Your task to perform on an android device: turn on the 24-hour format for clock Image 0: 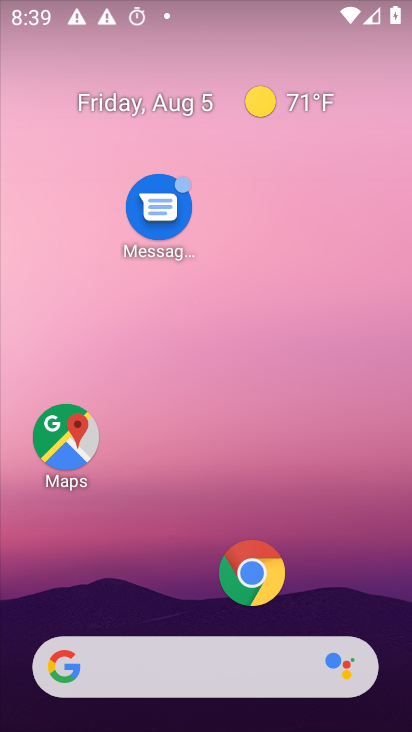
Step 0: press home button
Your task to perform on an android device: turn on the 24-hour format for clock Image 1: 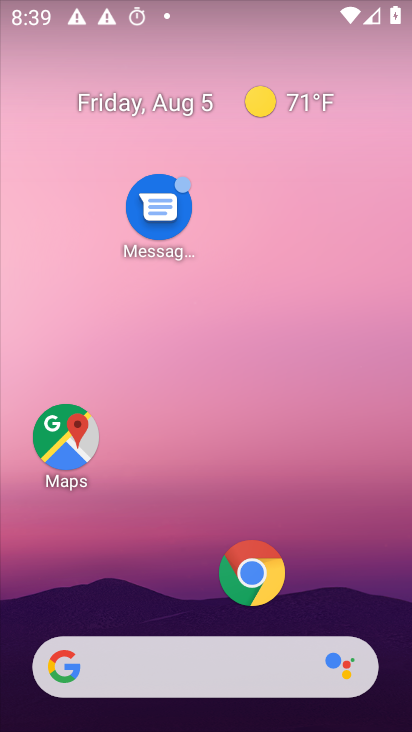
Step 1: drag from (198, 613) to (269, 107)
Your task to perform on an android device: turn on the 24-hour format for clock Image 2: 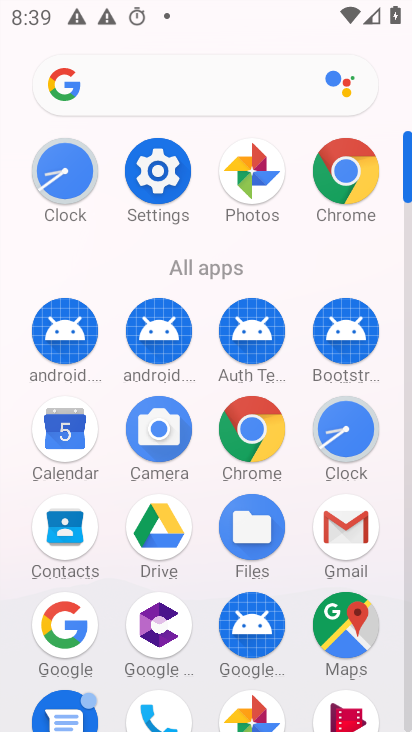
Step 2: click (341, 418)
Your task to perform on an android device: turn on the 24-hour format for clock Image 3: 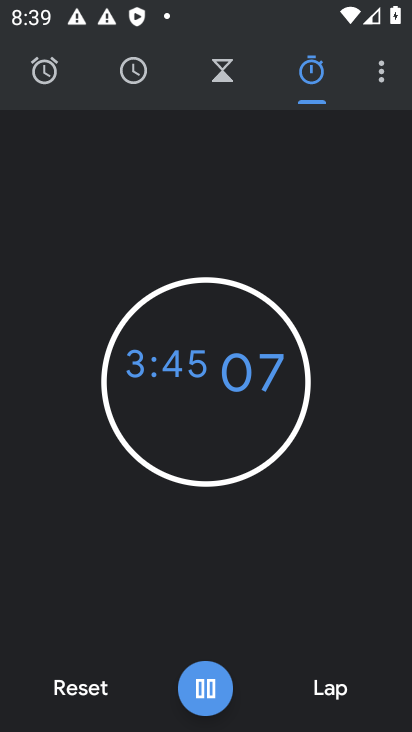
Step 3: click (375, 66)
Your task to perform on an android device: turn on the 24-hour format for clock Image 4: 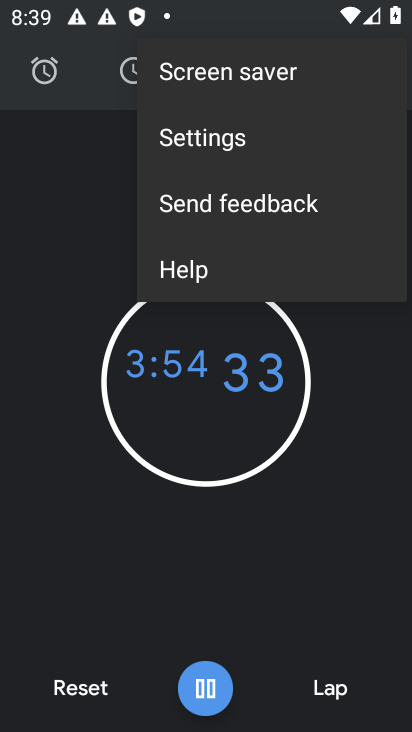
Step 4: click (256, 140)
Your task to perform on an android device: turn on the 24-hour format for clock Image 5: 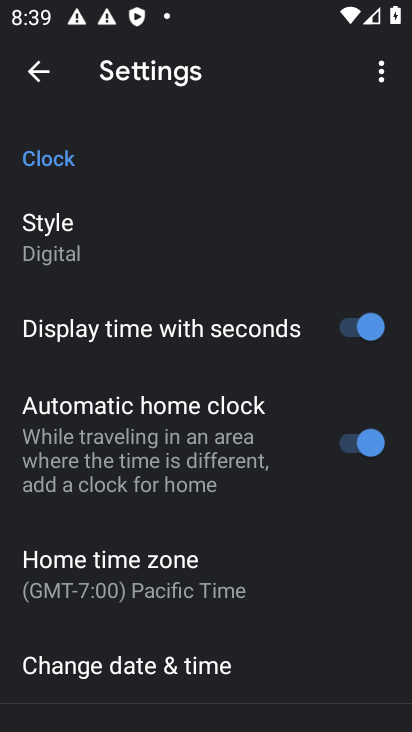
Step 5: click (261, 659)
Your task to perform on an android device: turn on the 24-hour format for clock Image 6: 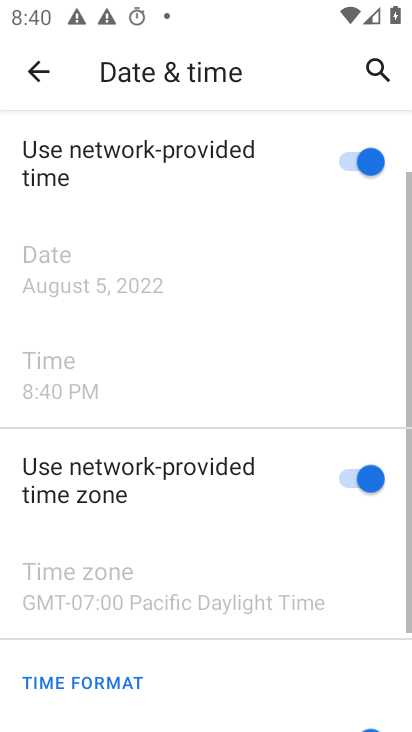
Step 6: drag from (246, 650) to (276, 309)
Your task to perform on an android device: turn on the 24-hour format for clock Image 7: 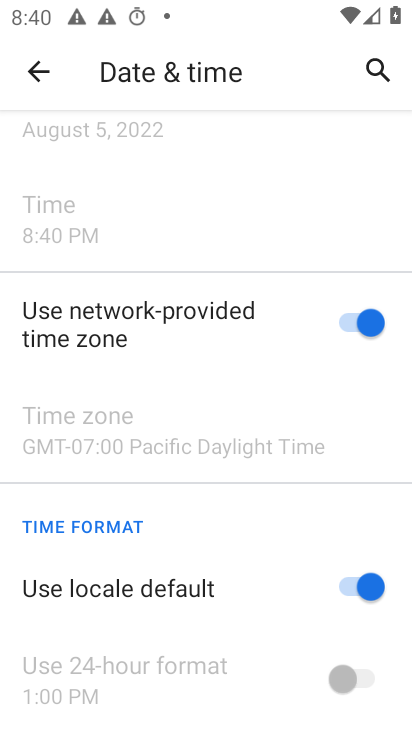
Step 7: click (352, 583)
Your task to perform on an android device: turn on the 24-hour format for clock Image 8: 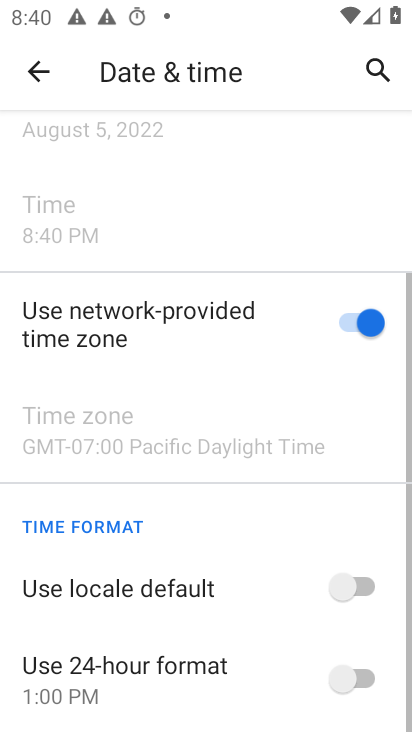
Step 8: click (361, 673)
Your task to perform on an android device: turn on the 24-hour format for clock Image 9: 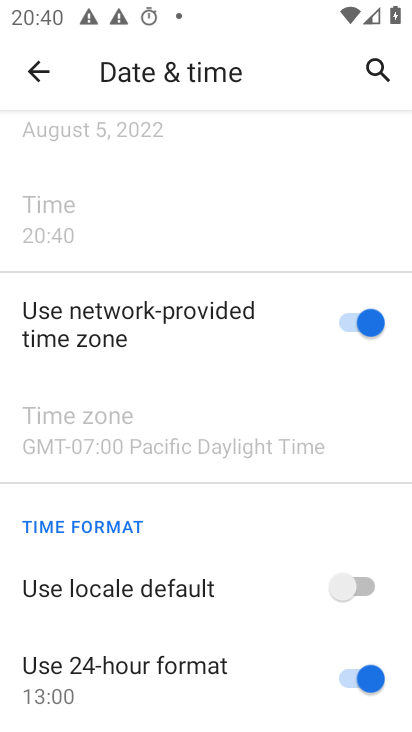
Step 9: task complete